Your task to perform on an android device: Open settings on Google Maps Image 0: 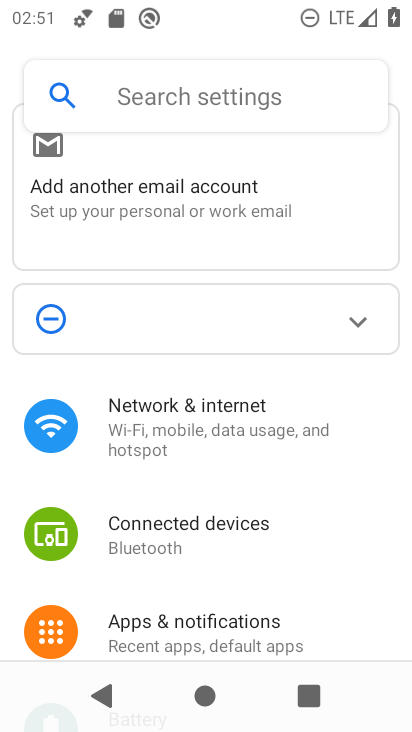
Step 0: press home button
Your task to perform on an android device: Open settings on Google Maps Image 1: 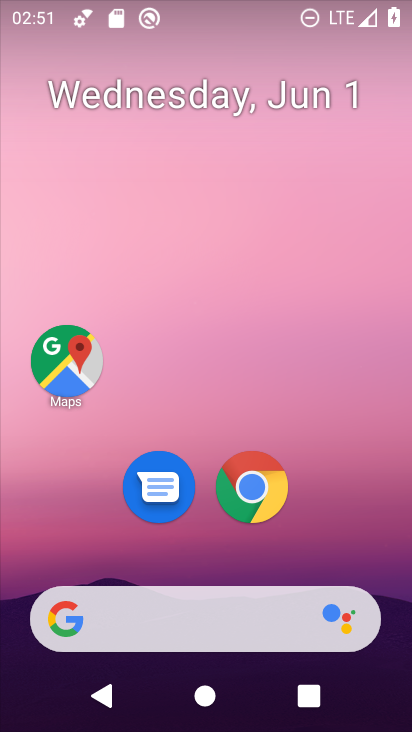
Step 1: click (61, 351)
Your task to perform on an android device: Open settings on Google Maps Image 2: 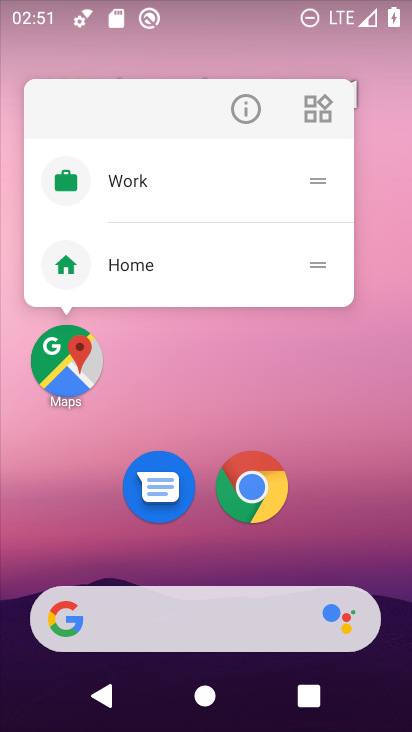
Step 2: click (83, 352)
Your task to perform on an android device: Open settings on Google Maps Image 3: 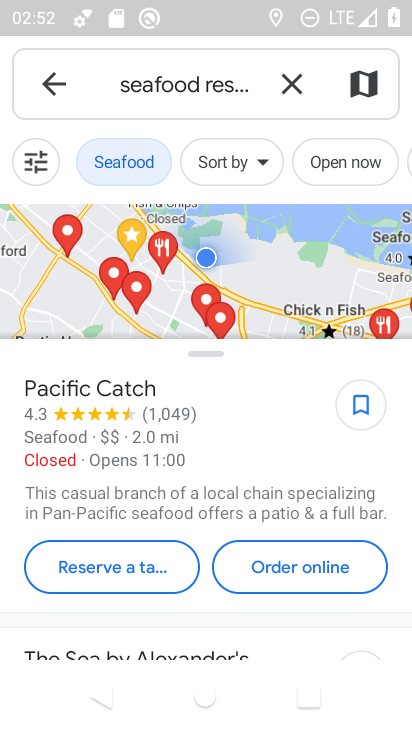
Step 3: click (297, 75)
Your task to perform on an android device: Open settings on Google Maps Image 4: 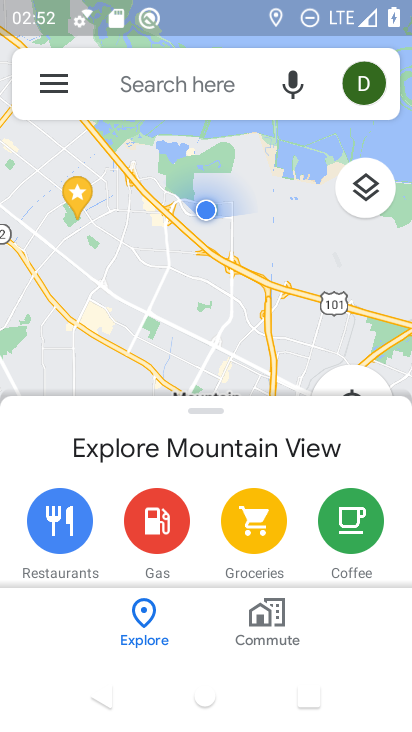
Step 4: click (40, 85)
Your task to perform on an android device: Open settings on Google Maps Image 5: 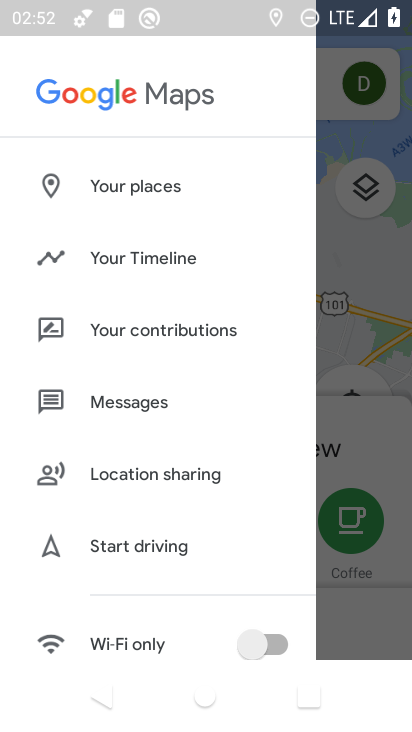
Step 5: drag from (166, 496) to (189, 241)
Your task to perform on an android device: Open settings on Google Maps Image 6: 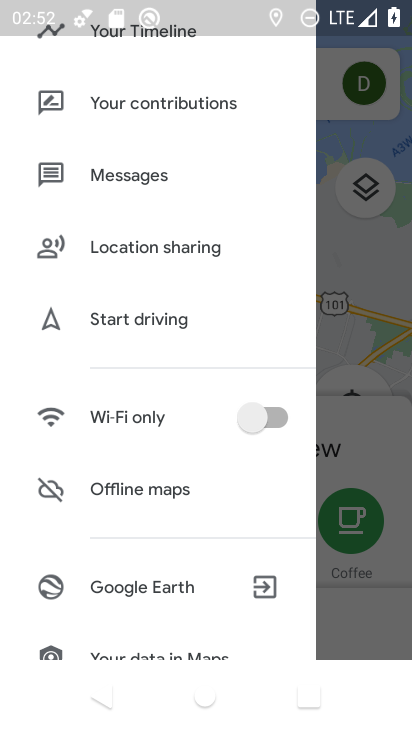
Step 6: drag from (144, 580) to (168, 279)
Your task to perform on an android device: Open settings on Google Maps Image 7: 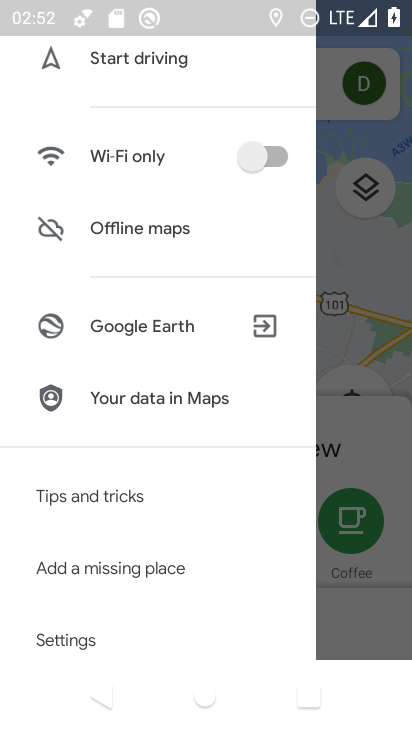
Step 7: click (95, 648)
Your task to perform on an android device: Open settings on Google Maps Image 8: 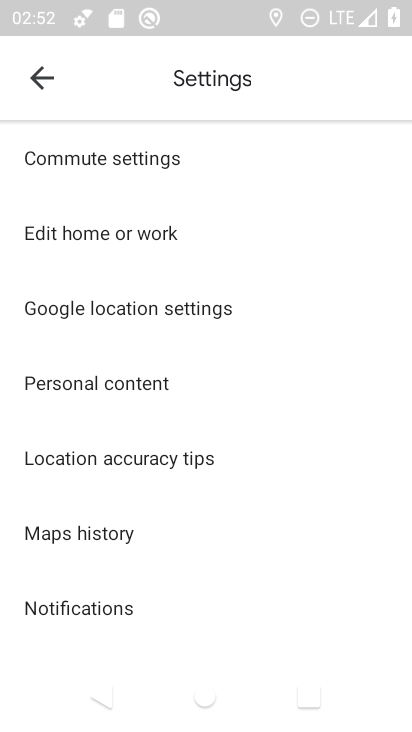
Step 8: task complete